Your task to perform on an android device: turn off data saver in the chrome app Image 0: 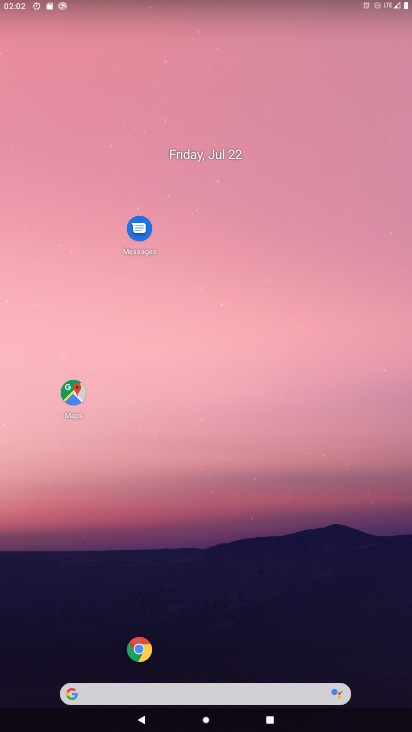
Step 0: drag from (124, 656) to (401, 556)
Your task to perform on an android device: turn off data saver in the chrome app Image 1: 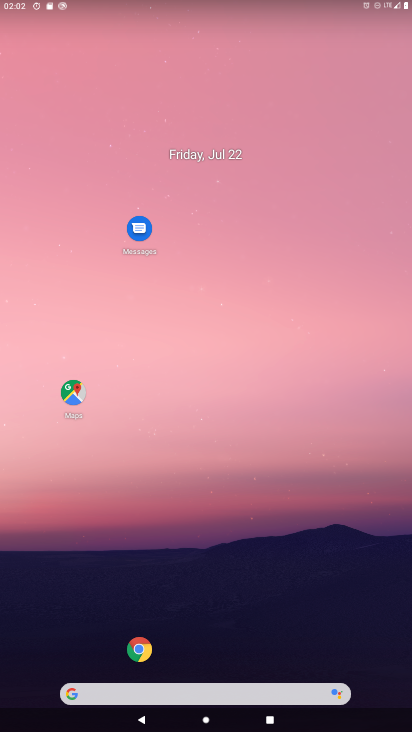
Step 1: click (147, 651)
Your task to perform on an android device: turn off data saver in the chrome app Image 2: 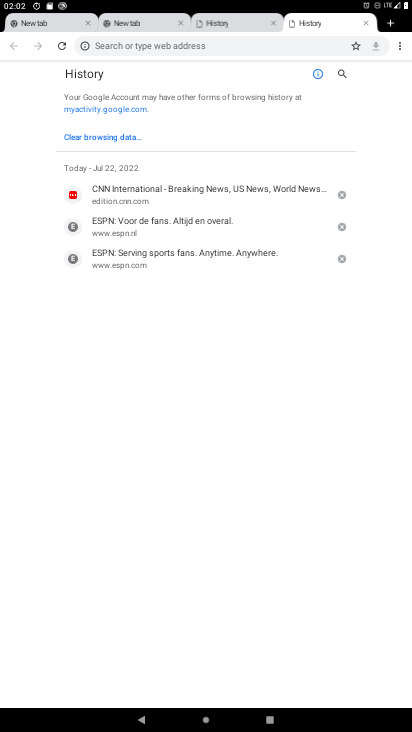
Step 2: press home button
Your task to perform on an android device: turn off data saver in the chrome app Image 3: 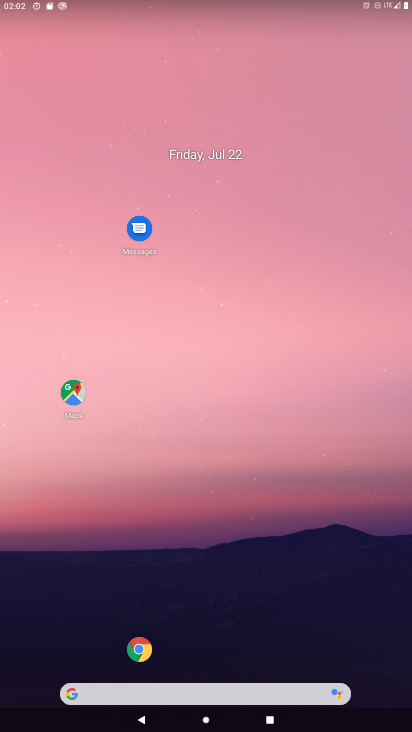
Step 3: click (153, 646)
Your task to perform on an android device: turn off data saver in the chrome app Image 4: 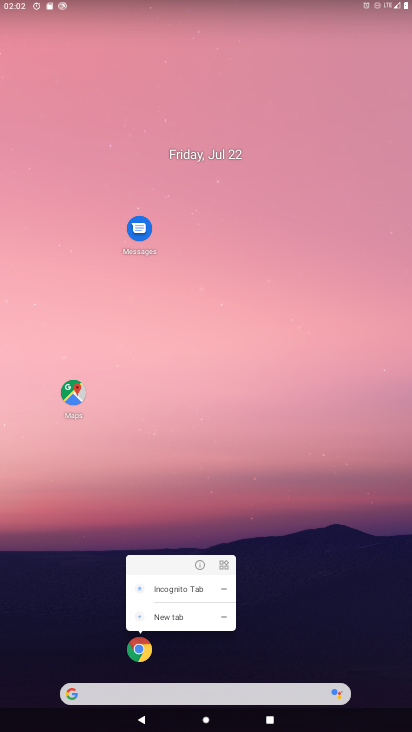
Step 4: click (144, 654)
Your task to perform on an android device: turn off data saver in the chrome app Image 5: 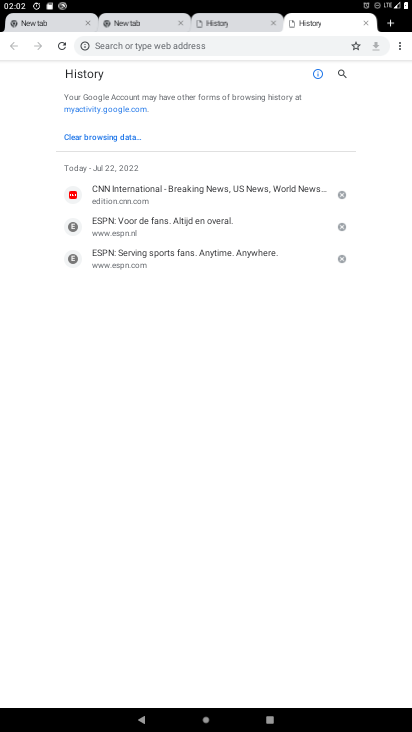
Step 5: task complete